Your task to perform on an android device: Turn off the flashlight Image 0: 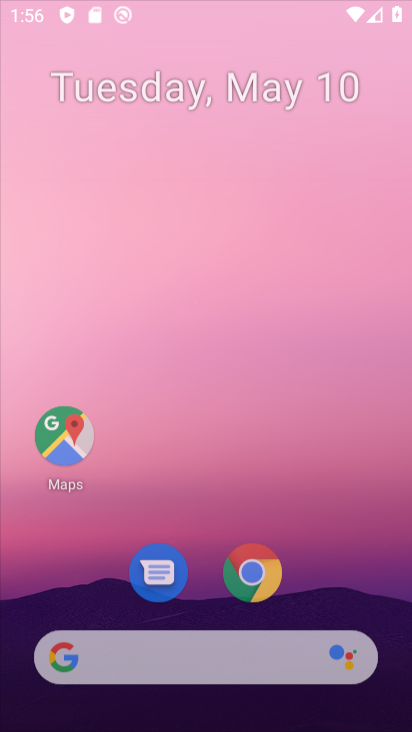
Step 0: drag from (338, 494) to (349, 200)
Your task to perform on an android device: Turn off the flashlight Image 1: 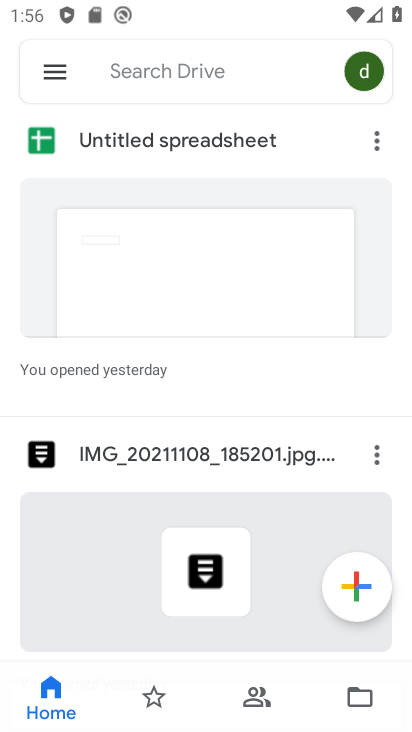
Step 1: press home button
Your task to perform on an android device: Turn off the flashlight Image 2: 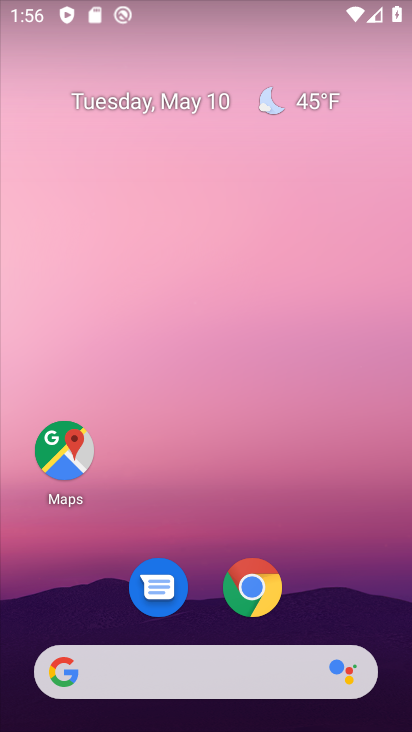
Step 2: drag from (344, 607) to (333, 213)
Your task to perform on an android device: Turn off the flashlight Image 3: 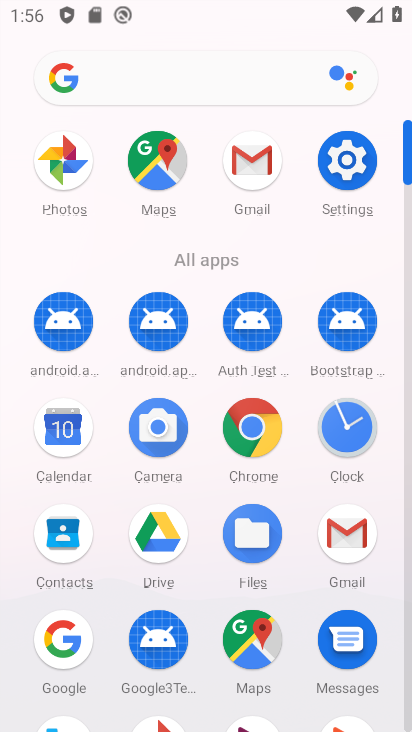
Step 3: click (351, 179)
Your task to perform on an android device: Turn off the flashlight Image 4: 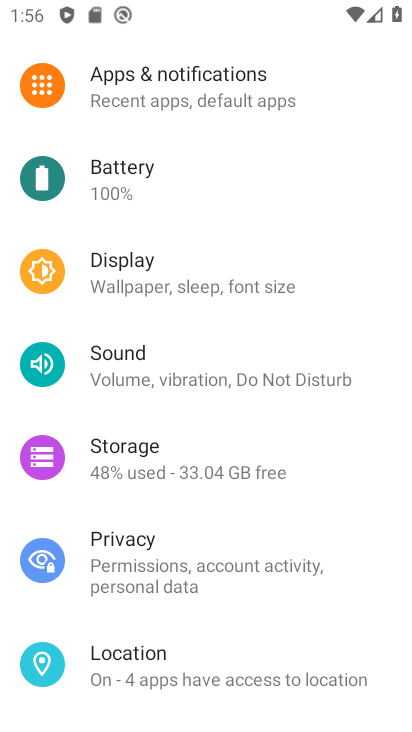
Step 4: drag from (253, 209) to (238, 597)
Your task to perform on an android device: Turn off the flashlight Image 5: 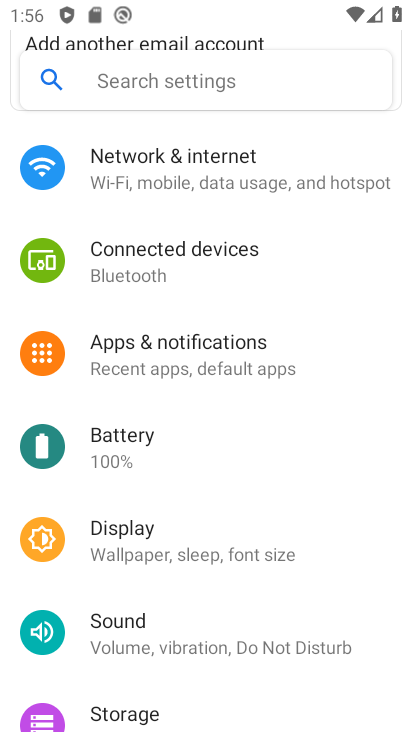
Step 5: click (226, 82)
Your task to perform on an android device: Turn off the flashlight Image 6: 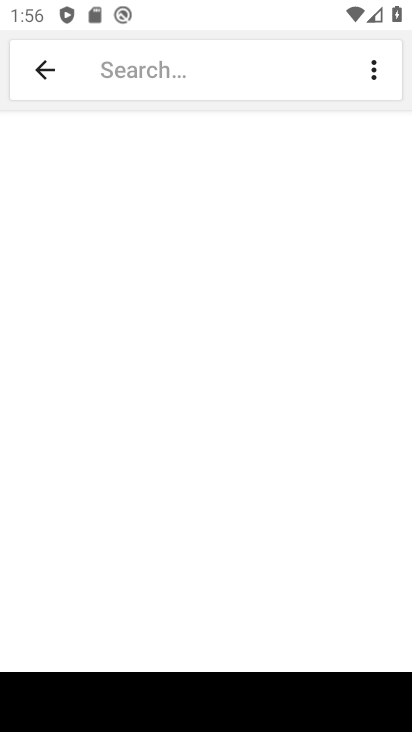
Step 6: type "flashlight"
Your task to perform on an android device: Turn off the flashlight Image 7: 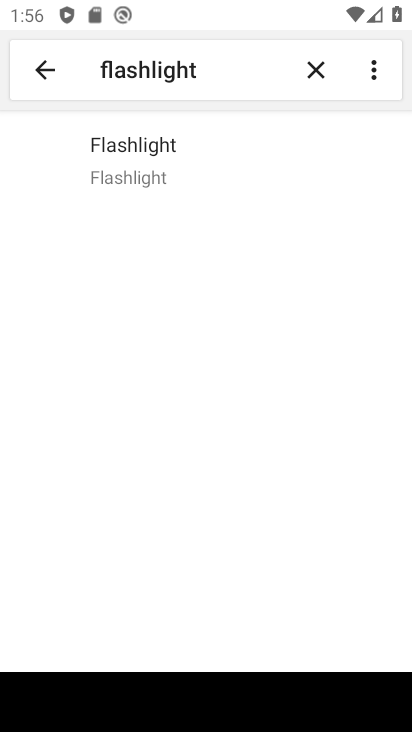
Step 7: click (147, 149)
Your task to perform on an android device: Turn off the flashlight Image 8: 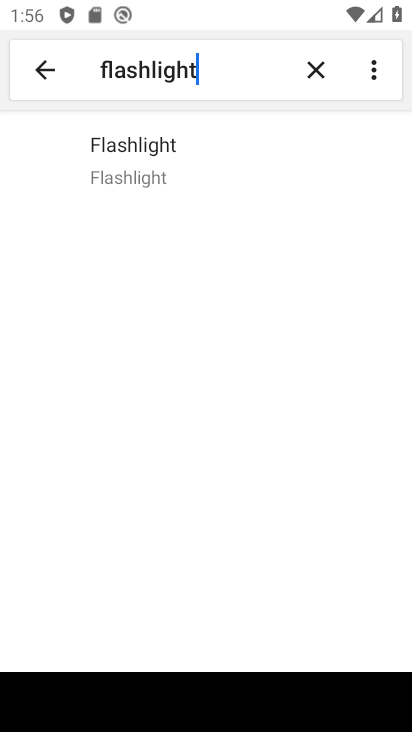
Step 8: task complete